Your task to perform on an android device: turn vacation reply on in the gmail app Image 0: 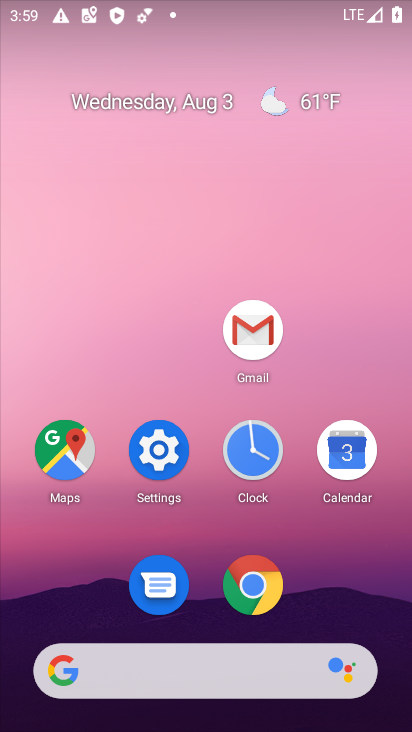
Step 0: click (280, 326)
Your task to perform on an android device: turn vacation reply on in the gmail app Image 1: 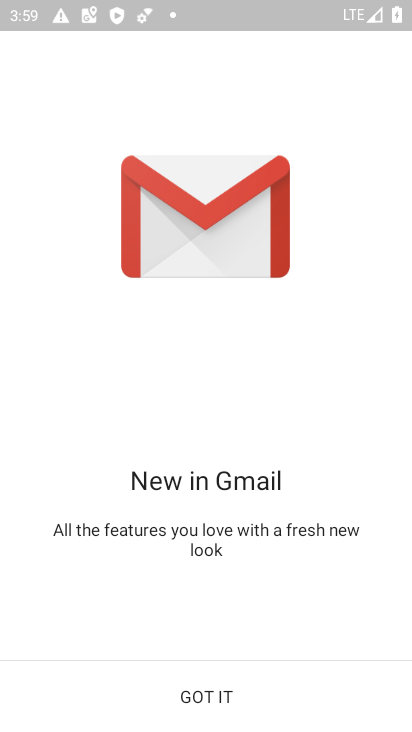
Step 1: click (192, 694)
Your task to perform on an android device: turn vacation reply on in the gmail app Image 2: 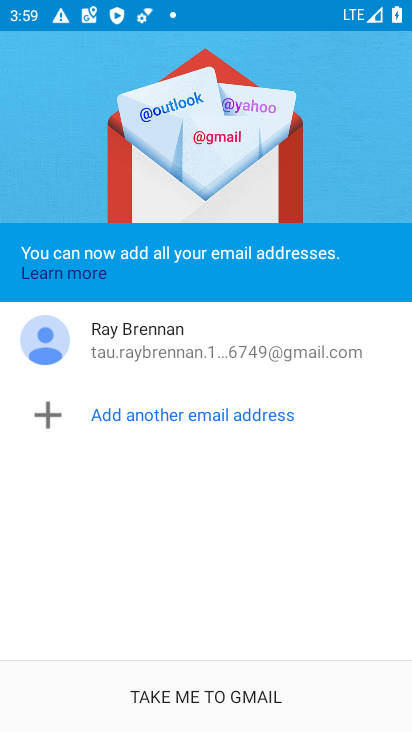
Step 2: click (221, 690)
Your task to perform on an android device: turn vacation reply on in the gmail app Image 3: 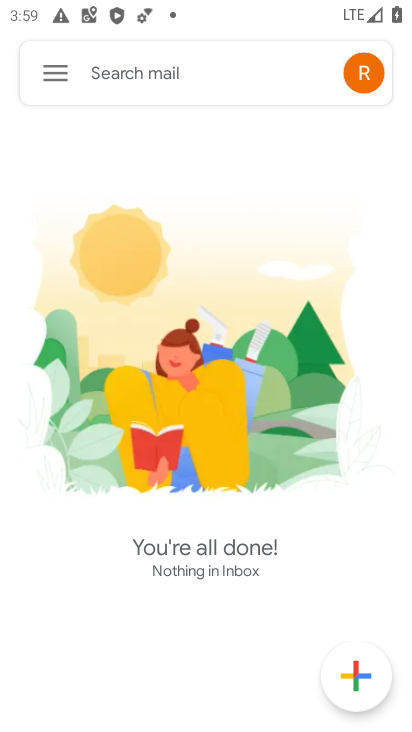
Step 3: click (56, 72)
Your task to perform on an android device: turn vacation reply on in the gmail app Image 4: 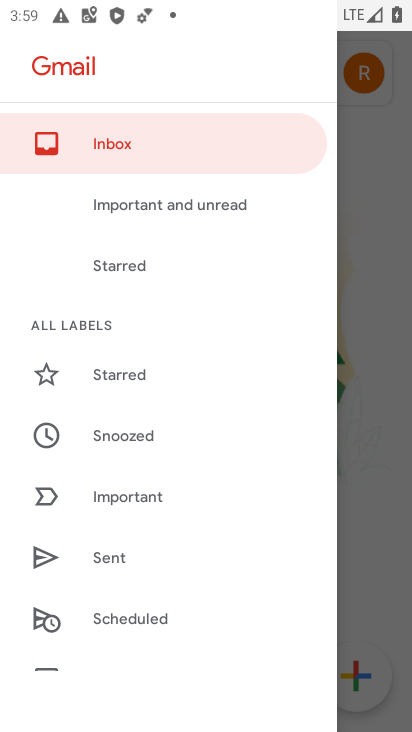
Step 4: drag from (193, 534) to (172, 227)
Your task to perform on an android device: turn vacation reply on in the gmail app Image 5: 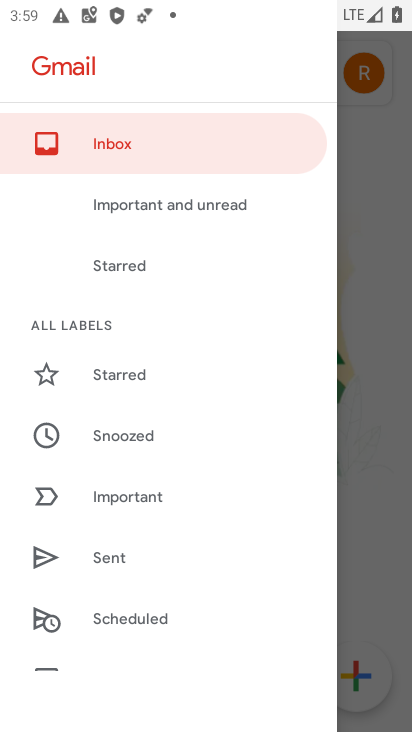
Step 5: drag from (220, 611) to (218, 144)
Your task to perform on an android device: turn vacation reply on in the gmail app Image 6: 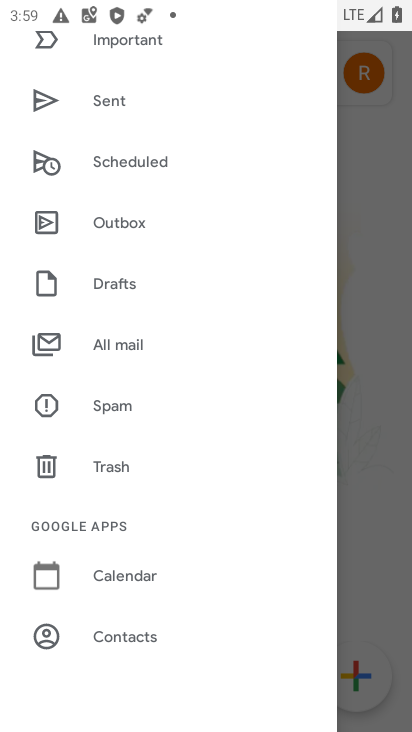
Step 6: click (234, 269)
Your task to perform on an android device: turn vacation reply on in the gmail app Image 7: 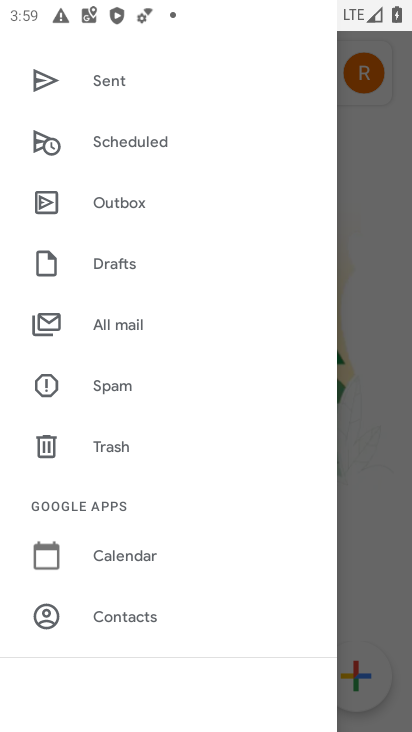
Step 7: drag from (245, 631) to (223, 216)
Your task to perform on an android device: turn vacation reply on in the gmail app Image 8: 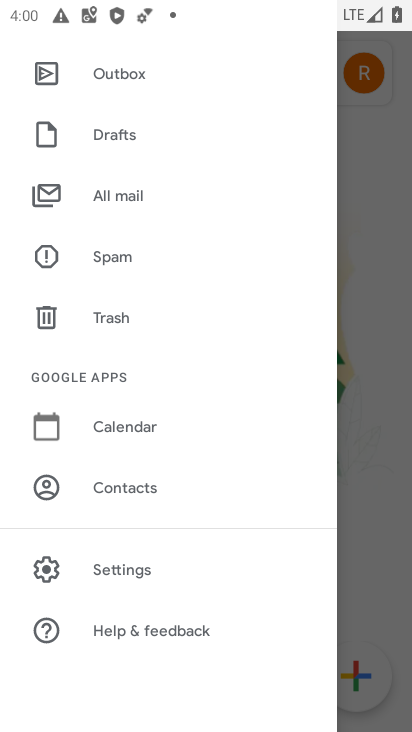
Step 8: click (85, 569)
Your task to perform on an android device: turn vacation reply on in the gmail app Image 9: 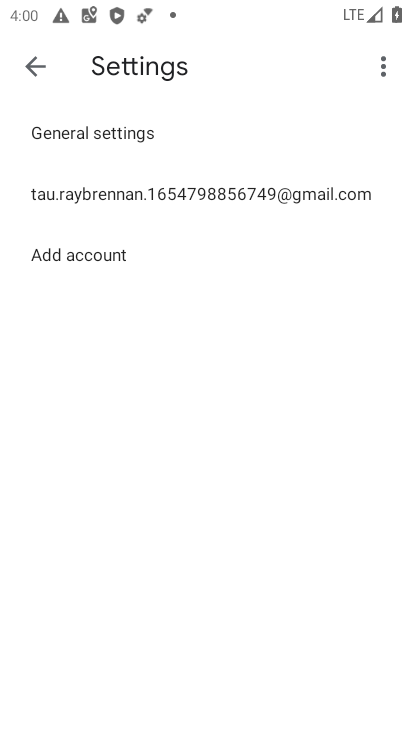
Step 9: click (189, 194)
Your task to perform on an android device: turn vacation reply on in the gmail app Image 10: 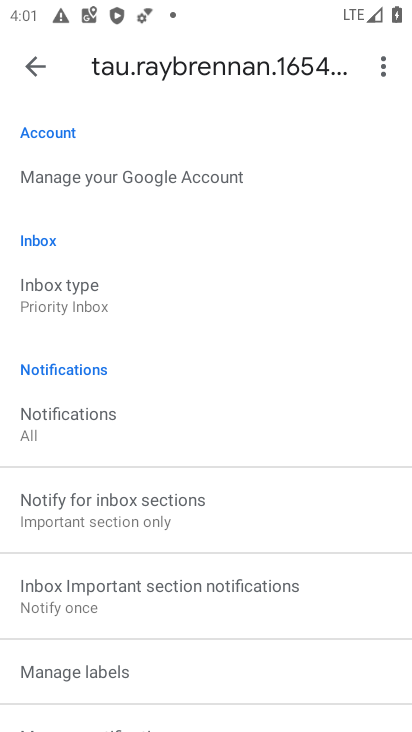
Step 10: drag from (174, 507) to (162, 206)
Your task to perform on an android device: turn vacation reply on in the gmail app Image 11: 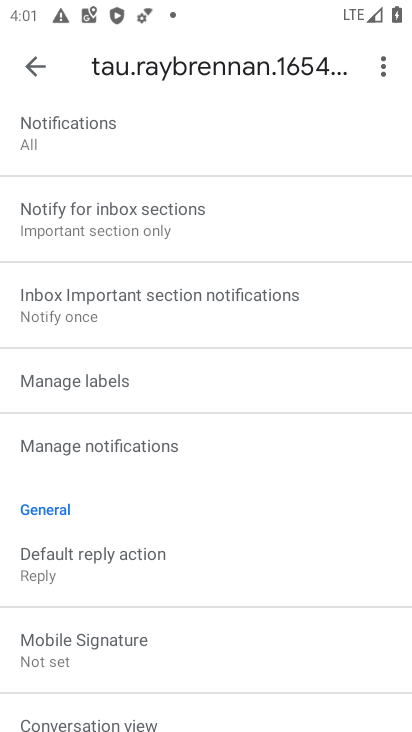
Step 11: drag from (206, 557) to (199, 209)
Your task to perform on an android device: turn vacation reply on in the gmail app Image 12: 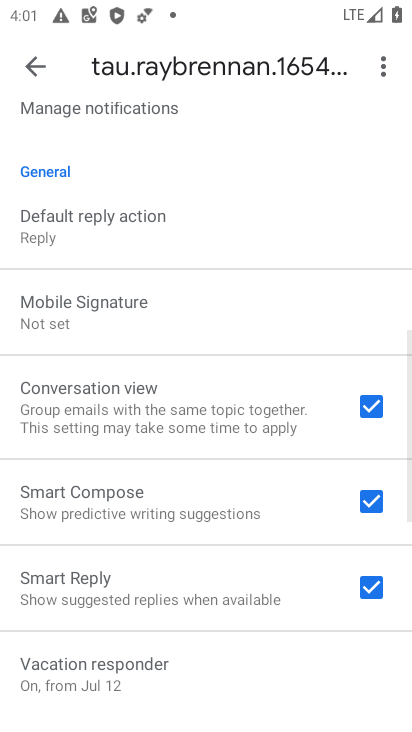
Step 12: click (127, 670)
Your task to perform on an android device: turn vacation reply on in the gmail app Image 13: 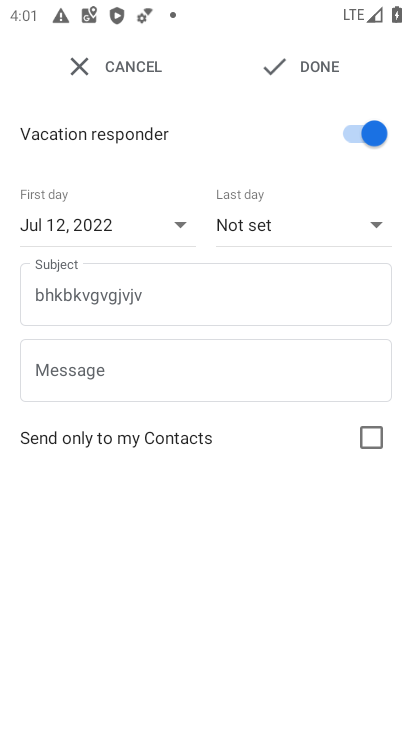
Step 13: task complete